Your task to perform on an android device: Open the Play Movies app and select the watchlist tab. Image 0: 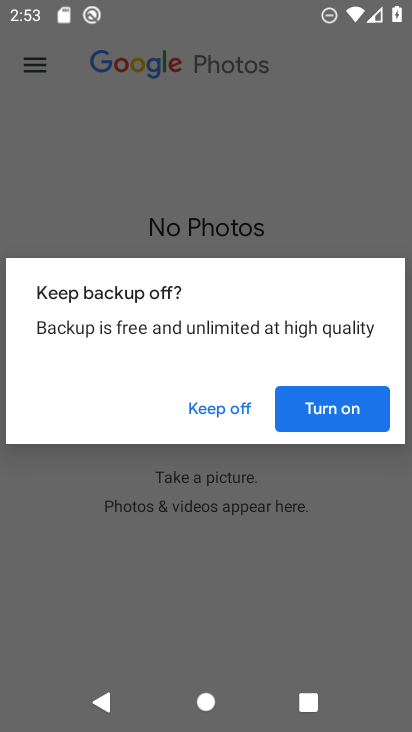
Step 0: press back button
Your task to perform on an android device: Open the Play Movies app and select the watchlist tab. Image 1: 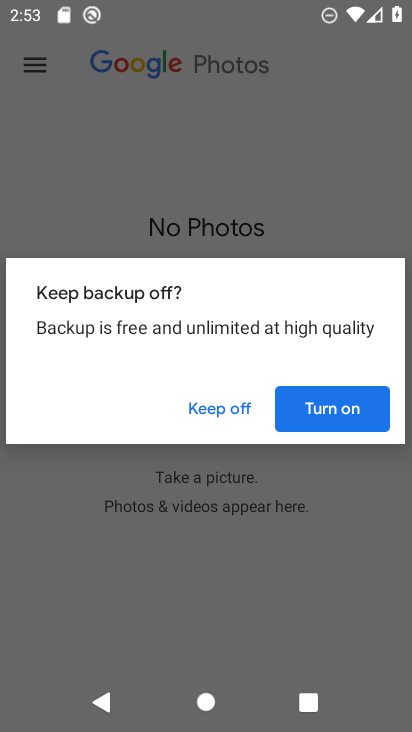
Step 1: press home button
Your task to perform on an android device: Open the Play Movies app and select the watchlist tab. Image 2: 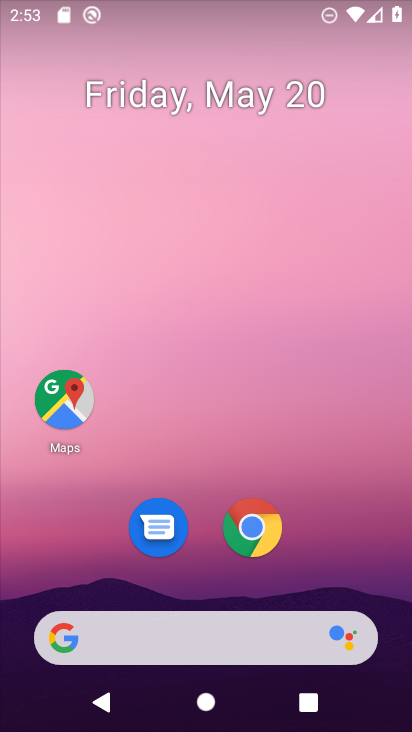
Step 2: drag from (187, 572) to (302, 69)
Your task to perform on an android device: Open the Play Movies app and select the watchlist tab. Image 3: 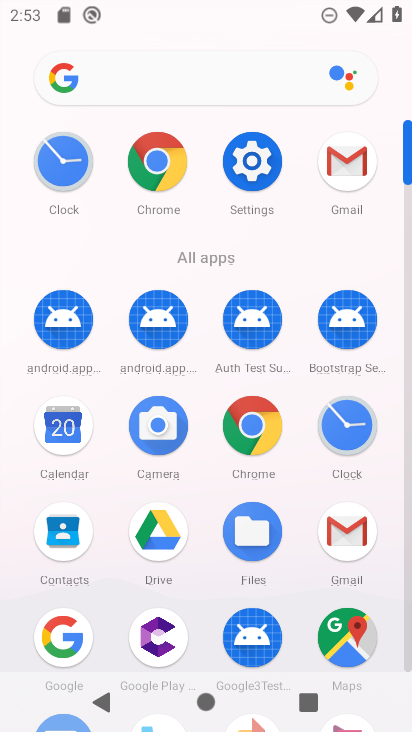
Step 3: drag from (198, 594) to (257, 101)
Your task to perform on an android device: Open the Play Movies app and select the watchlist tab. Image 4: 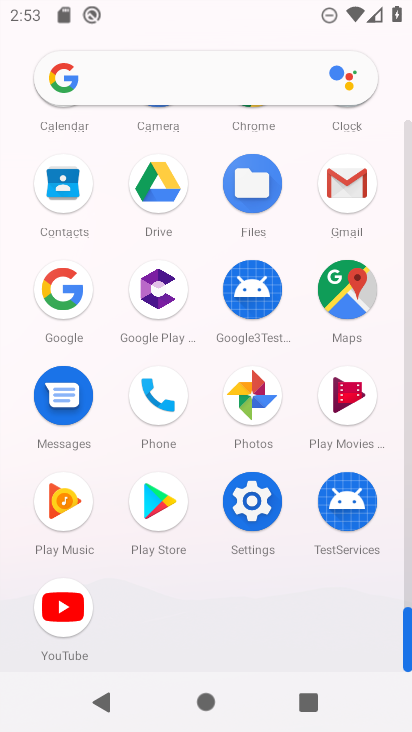
Step 4: click (350, 415)
Your task to perform on an android device: Open the Play Movies app and select the watchlist tab. Image 5: 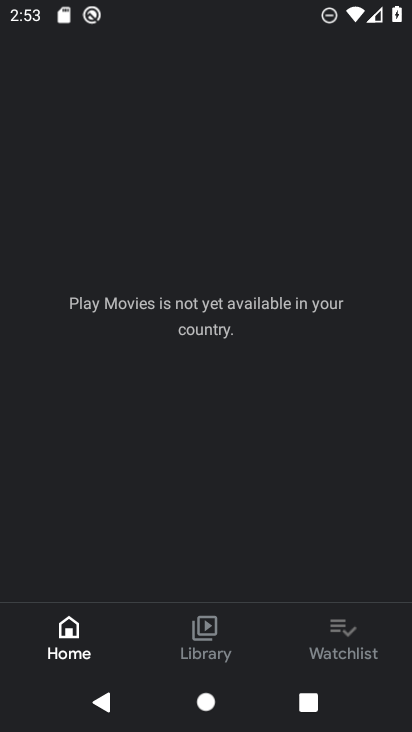
Step 5: task complete